Your task to perform on an android device: Go to display settings Image 0: 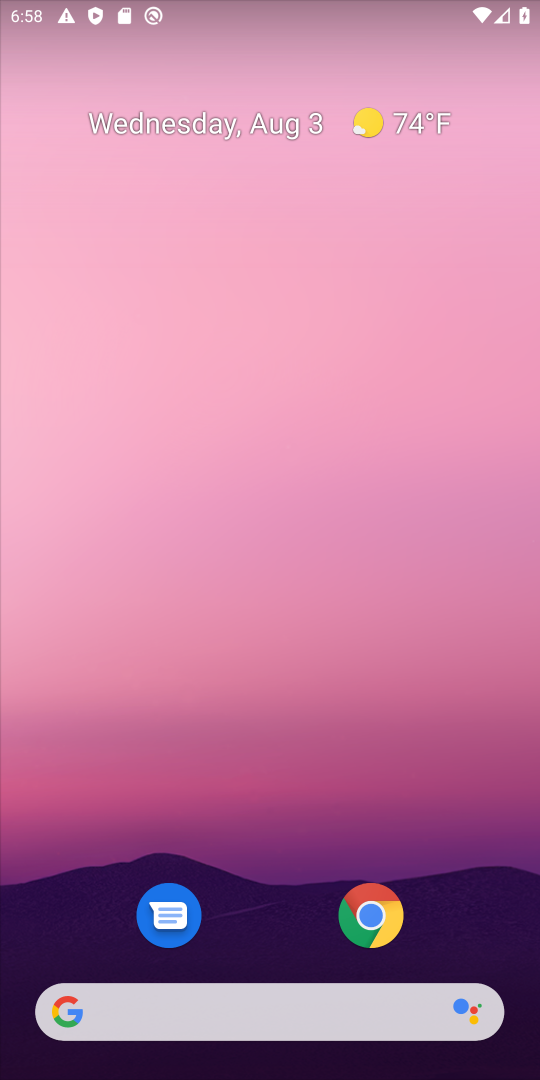
Step 0: press home button
Your task to perform on an android device: Go to display settings Image 1: 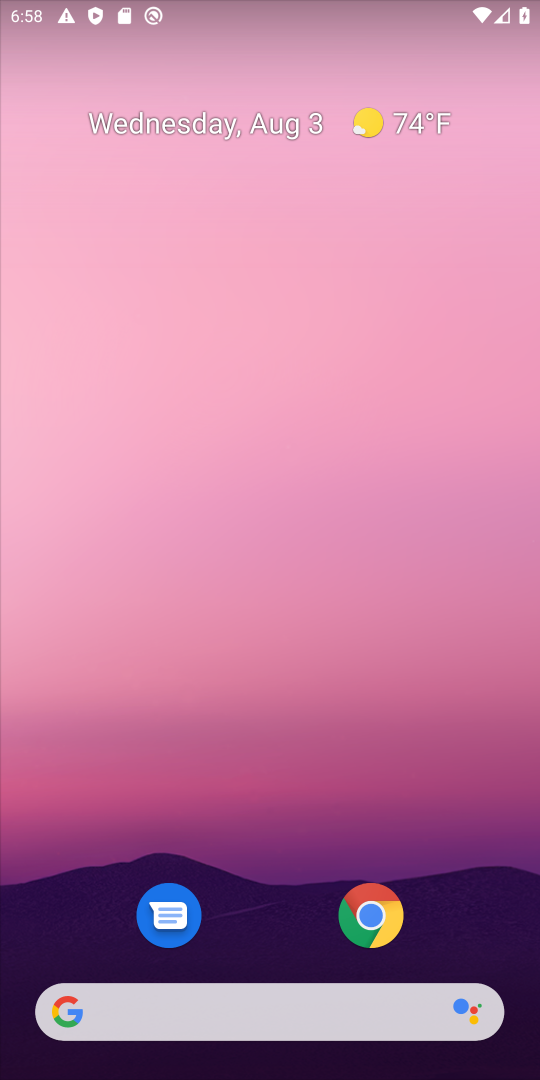
Step 1: drag from (314, 549) to (241, 278)
Your task to perform on an android device: Go to display settings Image 2: 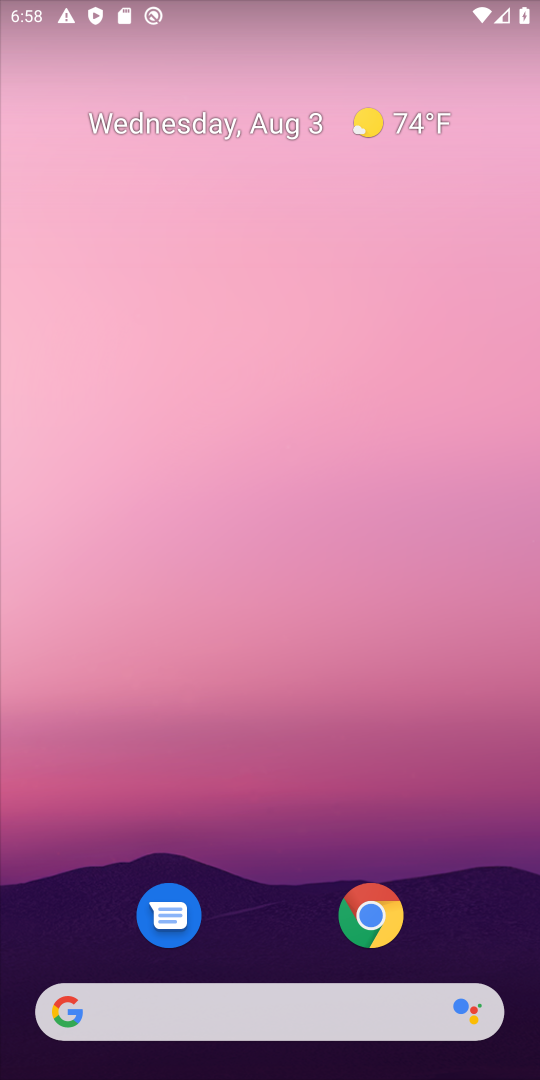
Step 2: drag from (263, 1032) to (132, 52)
Your task to perform on an android device: Go to display settings Image 3: 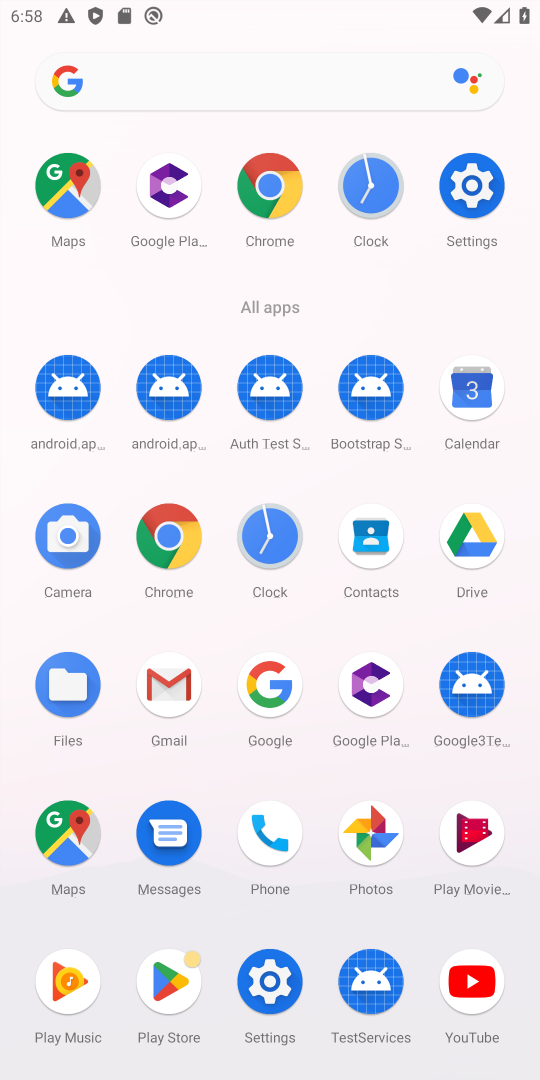
Step 3: drag from (470, 187) to (476, 867)
Your task to perform on an android device: Go to display settings Image 4: 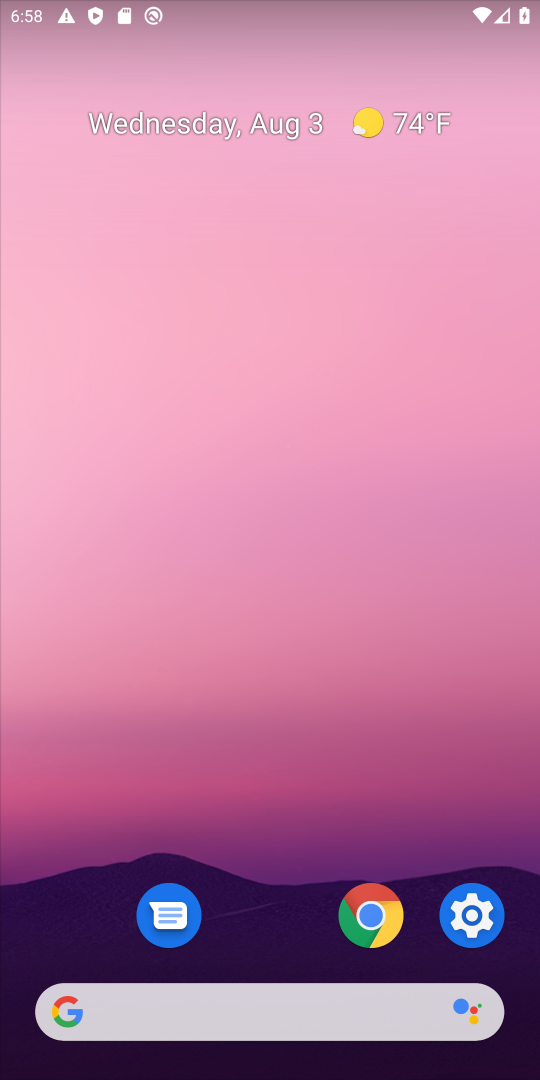
Step 4: click (470, 919)
Your task to perform on an android device: Go to display settings Image 5: 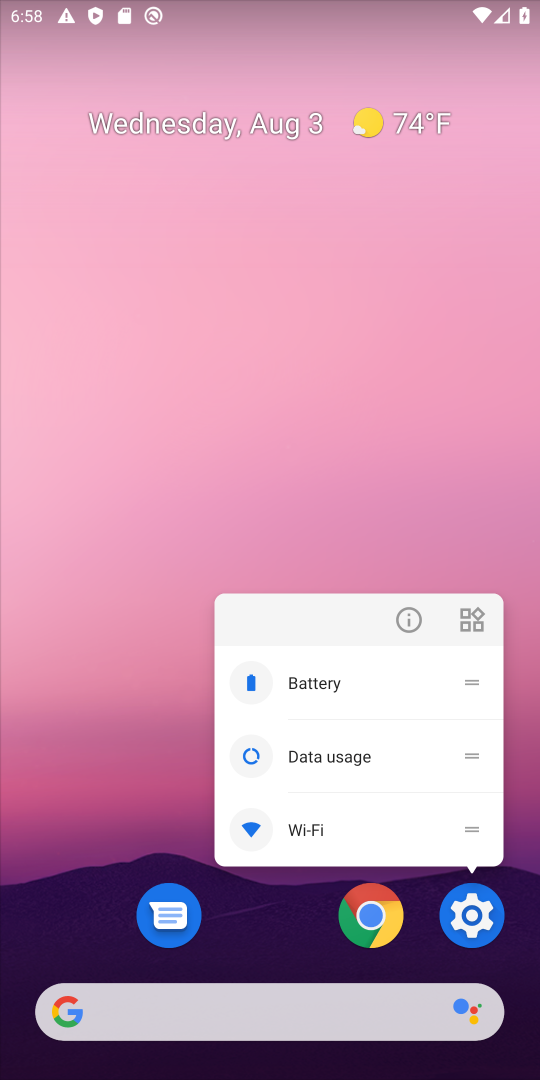
Step 5: click (473, 923)
Your task to perform on an android device: Go to display settings Image 6: 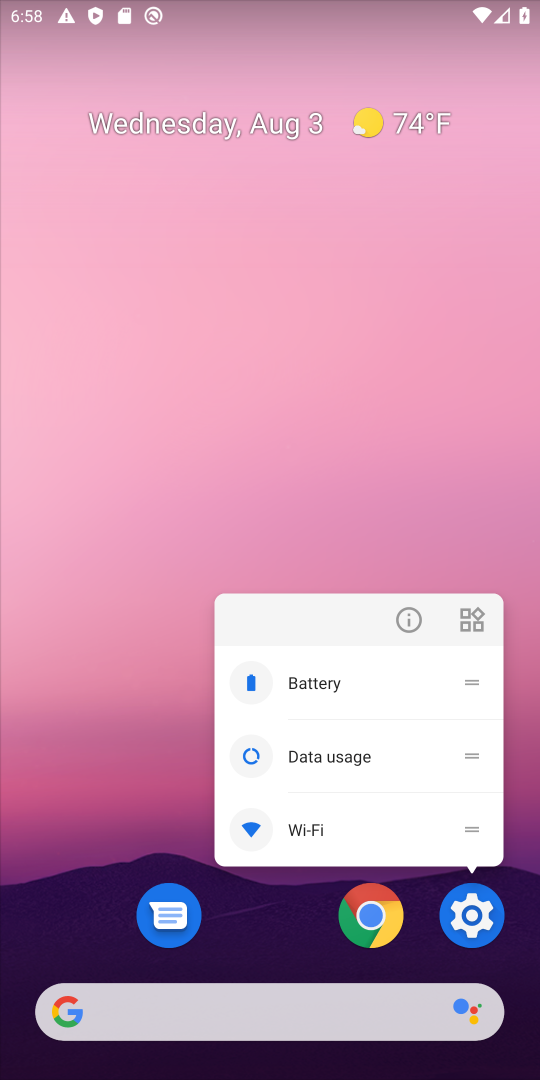
Step 6: click (460, 924)
Your task to perform on an android device: Go to display settings Image 7: 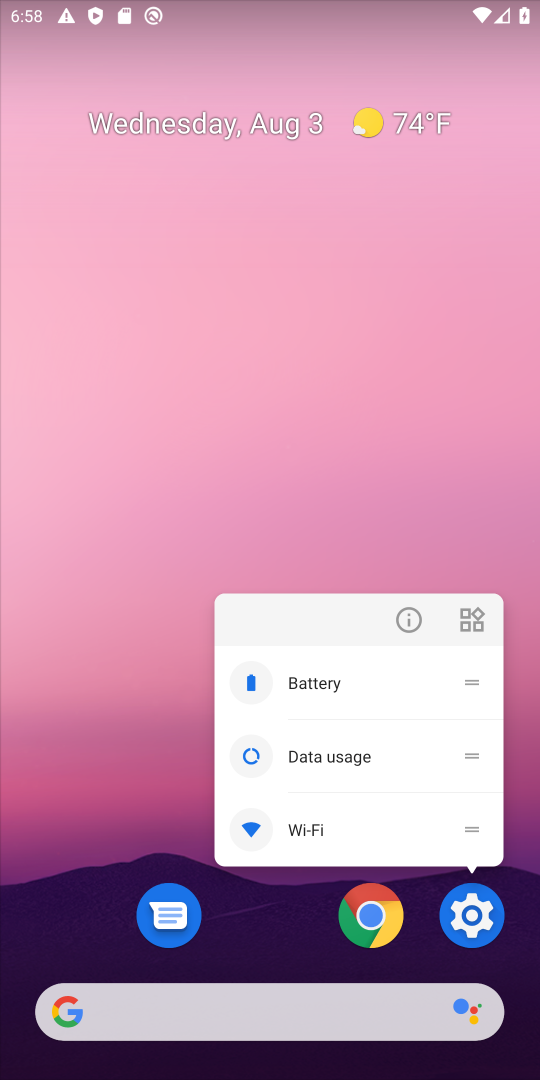
Step 7: click (460, 924)
Your task to perform on an android device: Go to display settings Image 8: 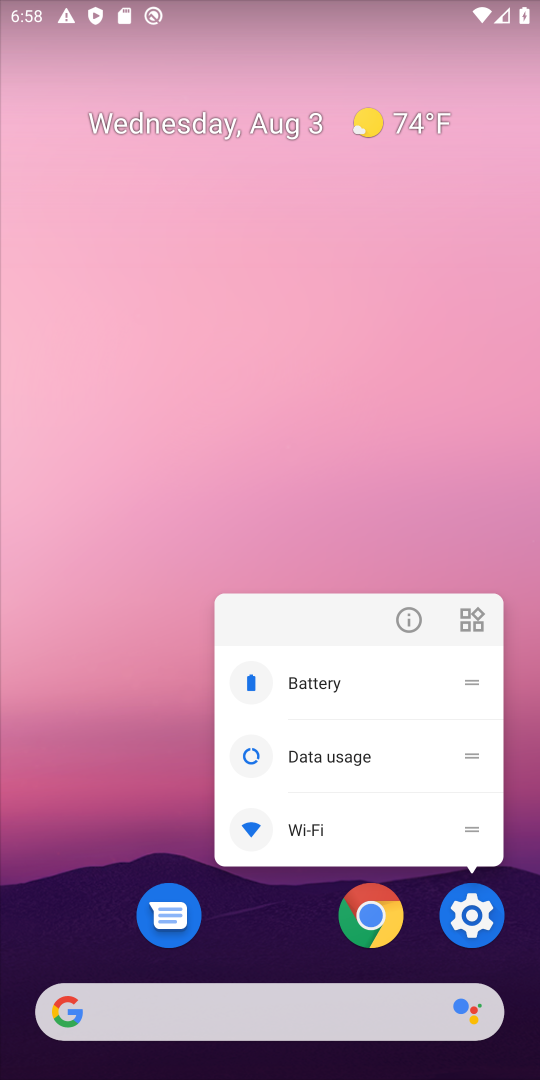
Step 8: click (460, 924)
Your task to perform on an android device: Go to display settings Image 9: 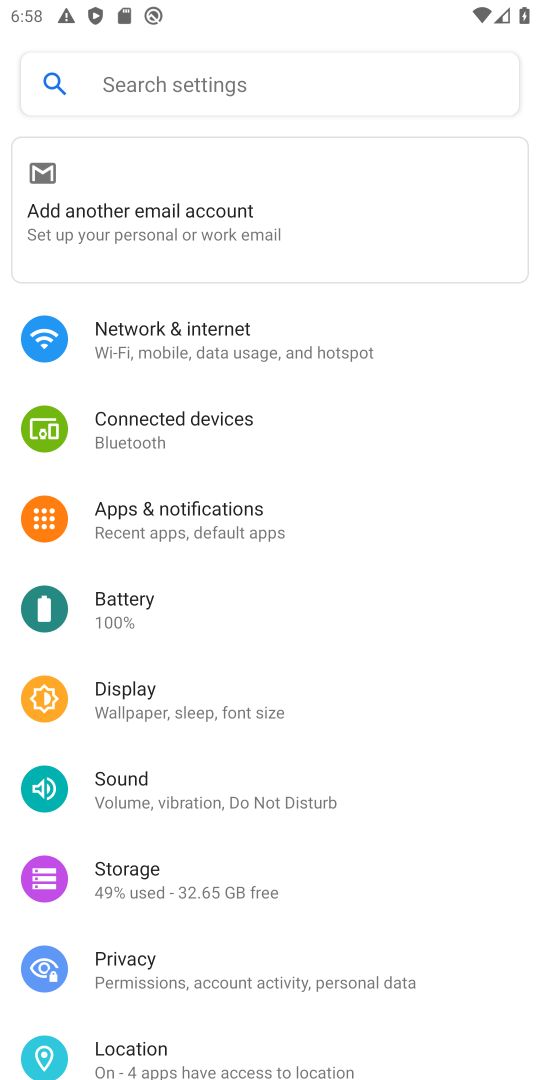
Step 9: click (155, 694)
Your task to perform on an android device: Go to display settings Image 10: 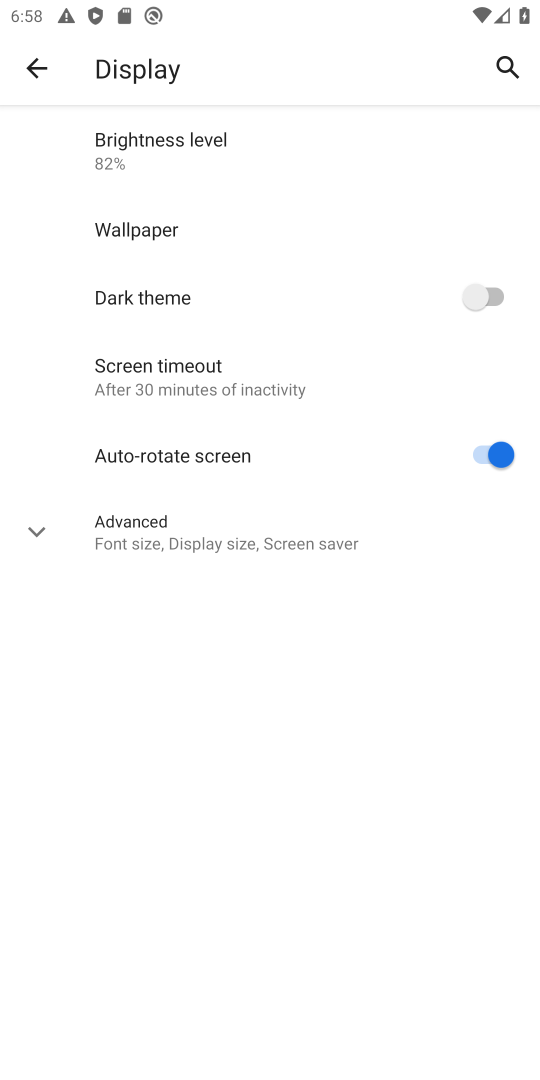
Step 10: task complete